Your task to perform on an android device: Open Google Maps Image 0: 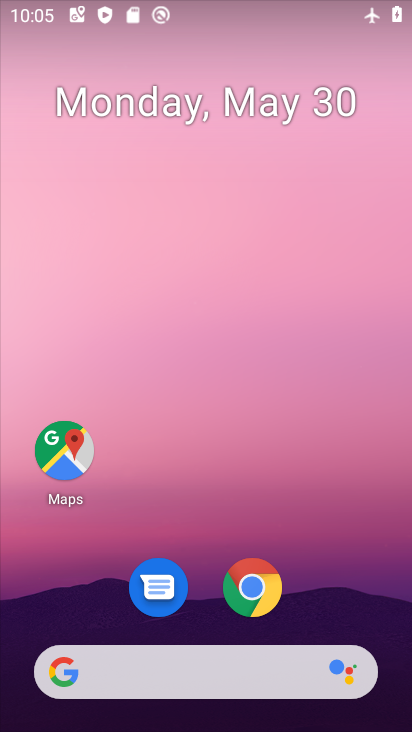
Step 0: drag from (299, 509) to (200, 8)
Your task to perform on an android device: Open Google Maps Image 1: 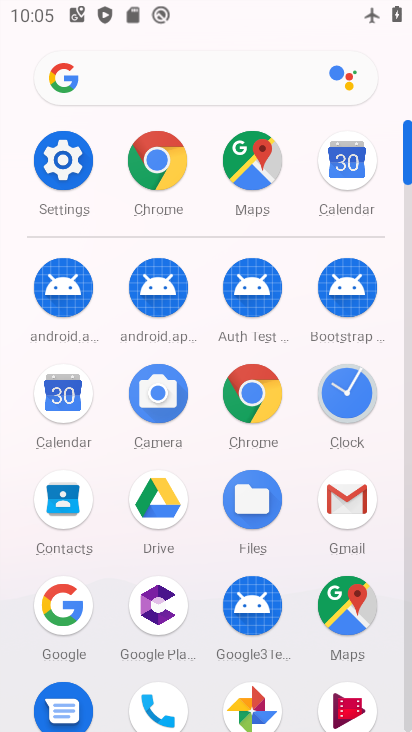
Step 1: drag from (0, 554) to (13, 235)
Your task to perform on an android device: Open Google Maps Image 2: 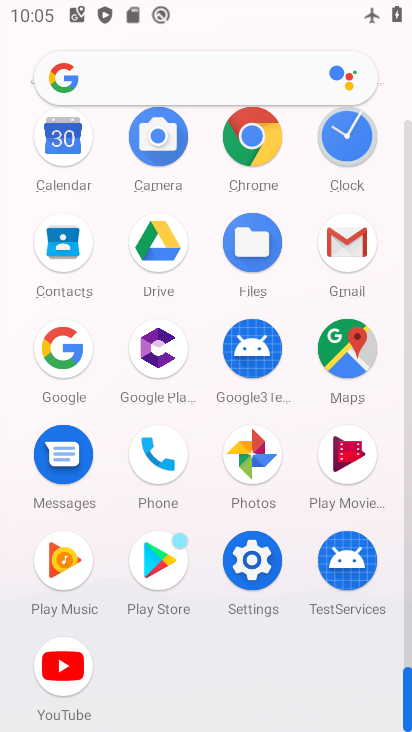
Step 2: click (349, 343)
Your task to perform on an android device: Open Google Maps Image 3: 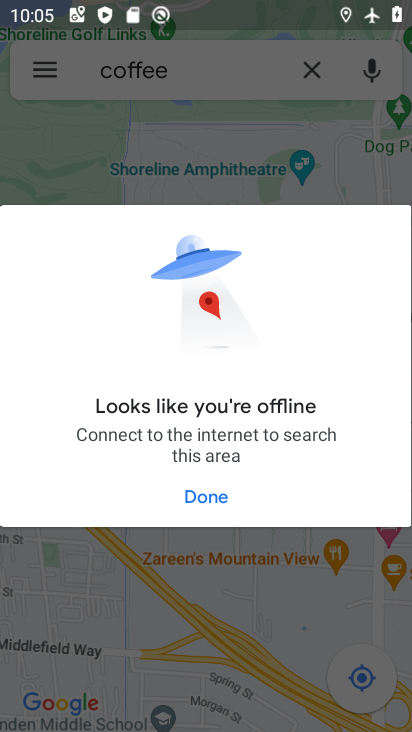
Step 3: click (196, 485)
Your task to perform on an android device: Open Google Maps Image 4: 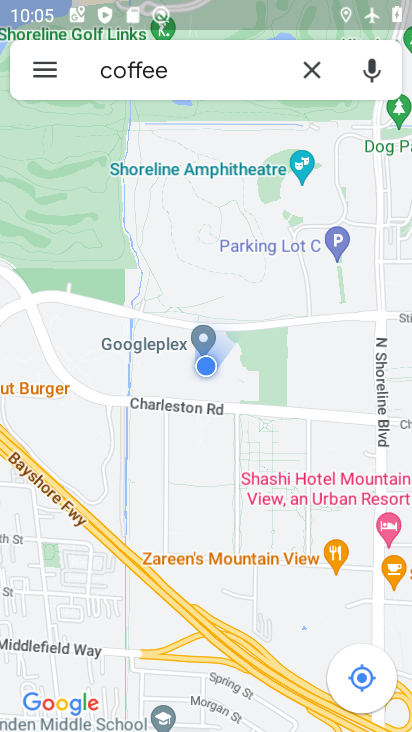
Step 4: click (306, 71)
Your task to perform on an android device: Open Google Maps Image 5: 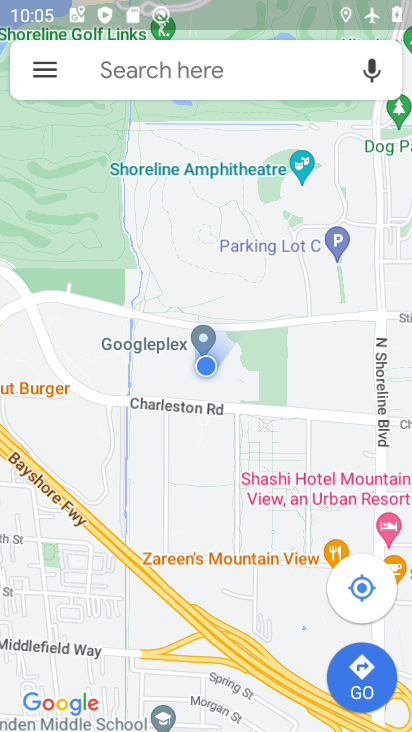
Step 5: task complete